Your task to perform on an android device: Show me recent news Image 0: 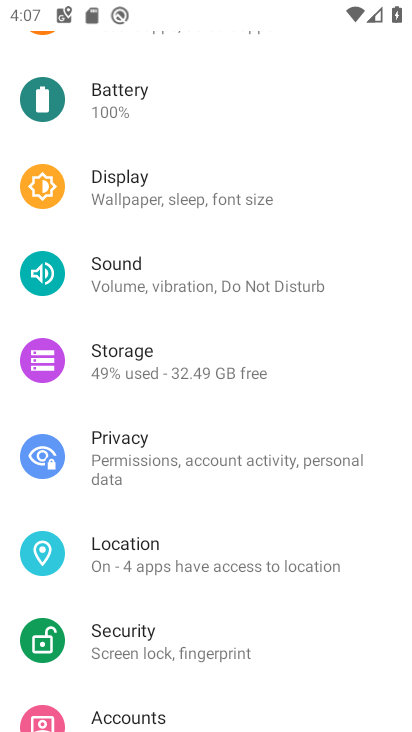
Step 0: press home button
Your task to perform on an android device: Show me recent news Image 1: 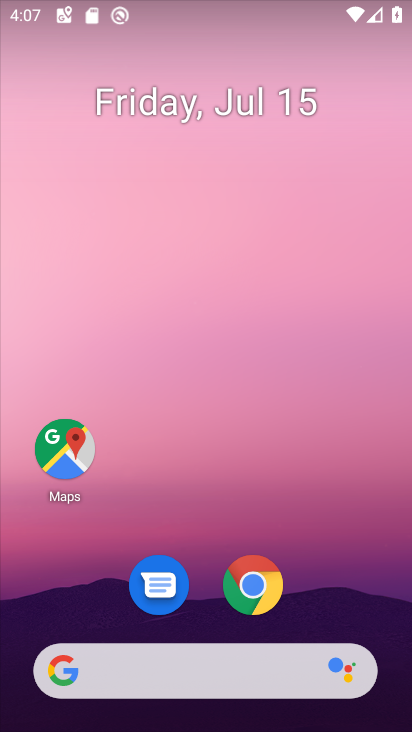
Step 1: click (271, 687)
Your task to perform on an android device: Show me recent news Image 2: 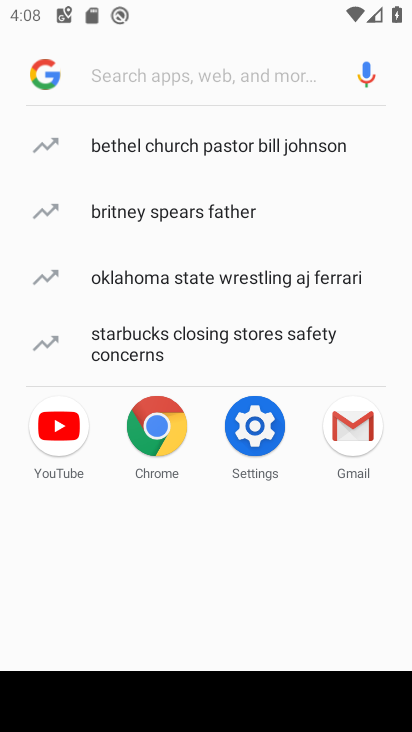
Step 2: type "recent news"
Your task to perform on an android device: Show me recent news Image 3: 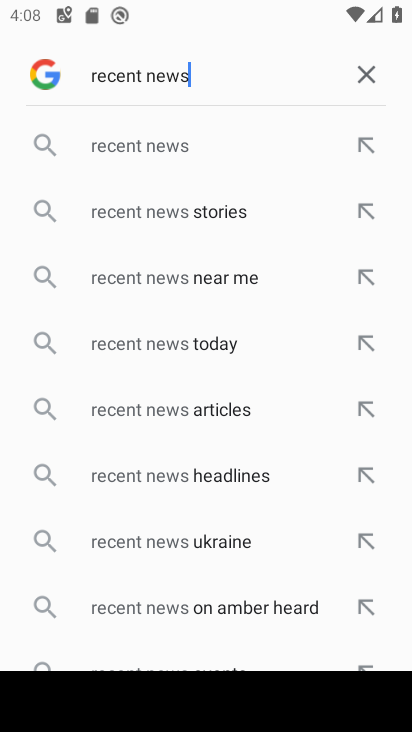
Step 3: click (166, 144)
Your task to perform on an android device: Show me recent news Image 4: 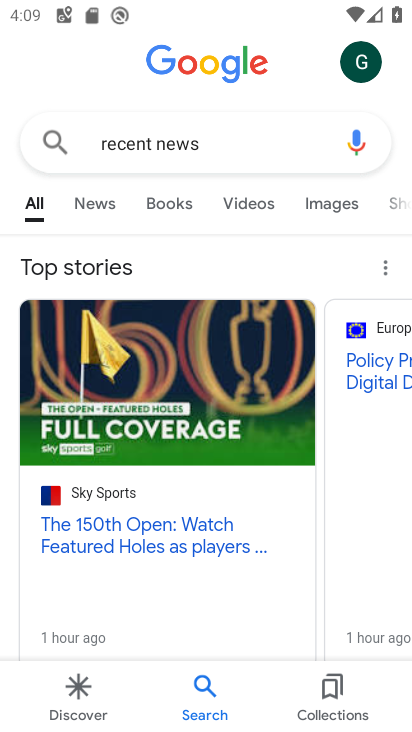
Step 4: click (94, 198)
Your task to perform on an android device: Show me recent news Image 5: 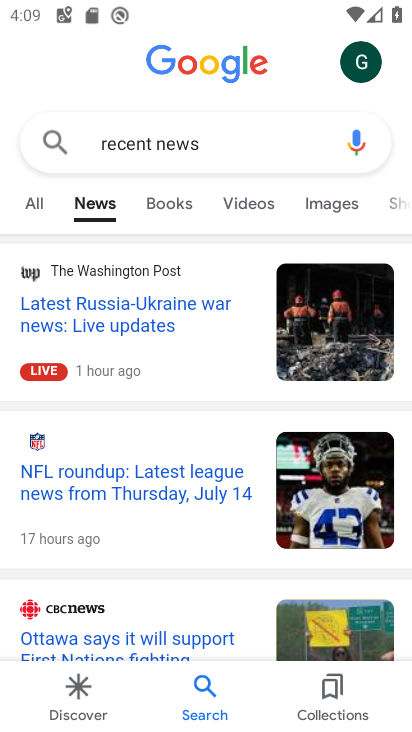
Step 5: task complete